Your task to perform on an android device: Go to CNN.com Image 0: 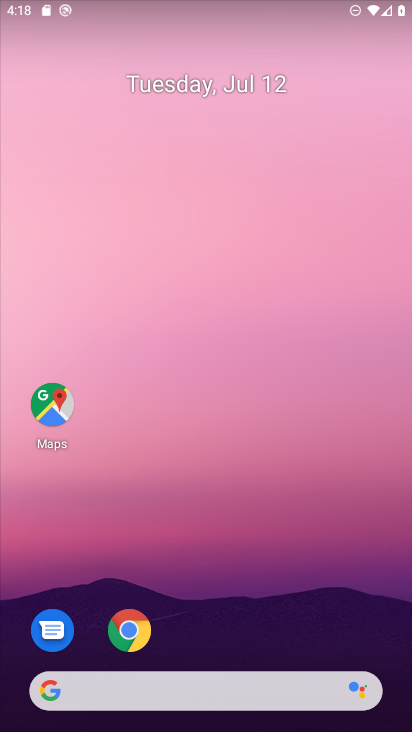
Step 0: click (136, 654)
Your task to perform on an android device: Go to CNN.com Image 1: 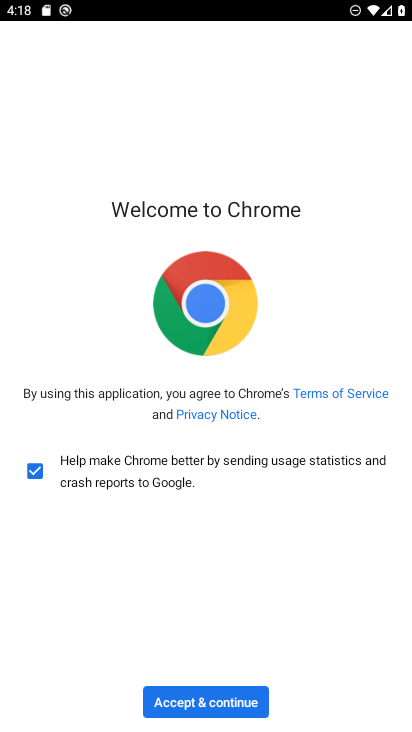
Step 1: click (230, 695)
Your task to perform on an android device: Go to CNN.com Image 2: 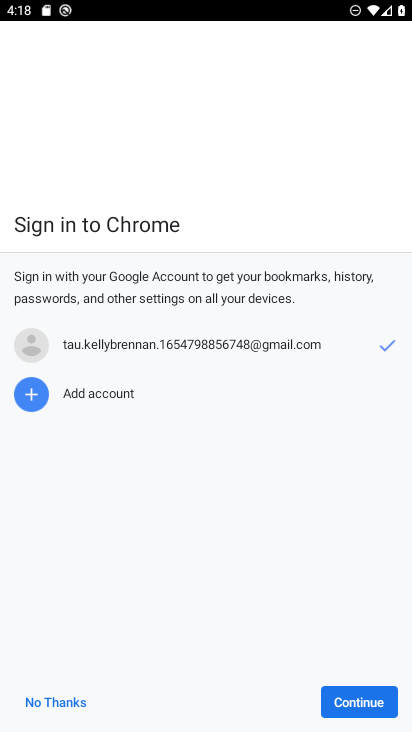
Step 2: click (341, 707)
Your task to perform on an android device: Go to CNN.com Image 3: 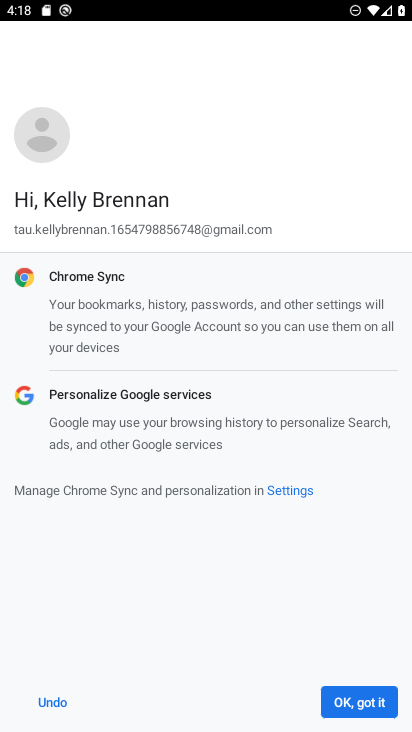
Step 3: click (341, 707)
Your task to perform on an android device: Go to CNN.com Image 4: 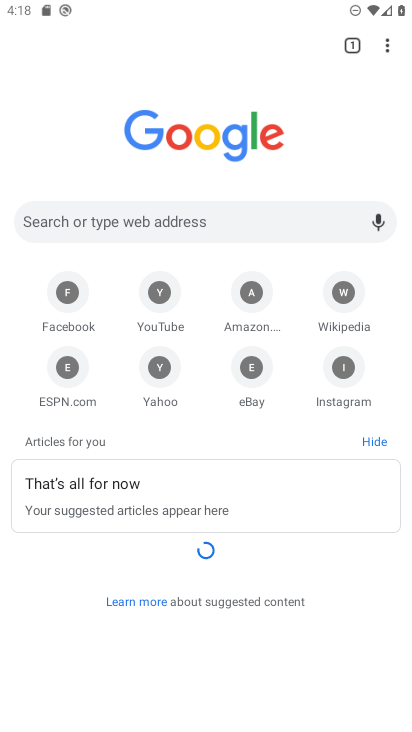
Step 4: click (154, 227)
Your task to perform on an android device: Go to CNN.com Image 5: 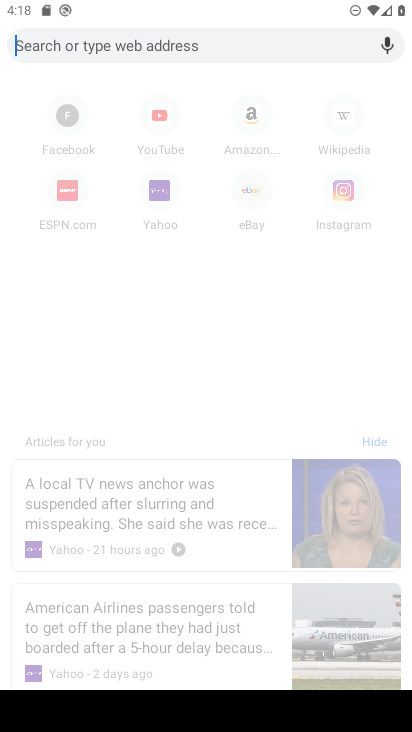
Step 5: type "CNN.com"
Your task to perform on an android device: Go to CNN.com Image 6: 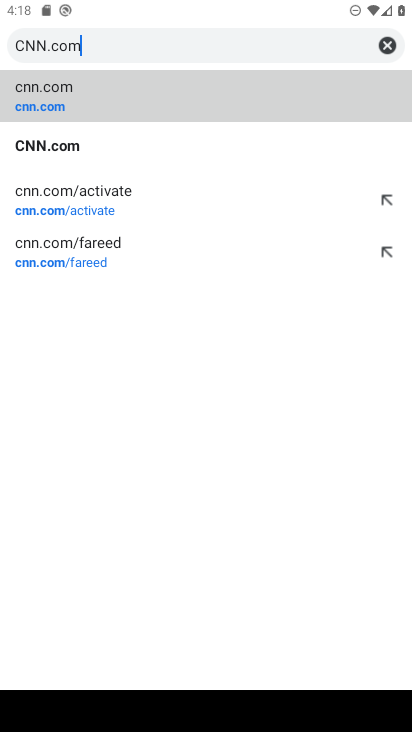
Step 6: click (97, 99)
Your task to perform on an android device: Go to CNN.com Image 7: 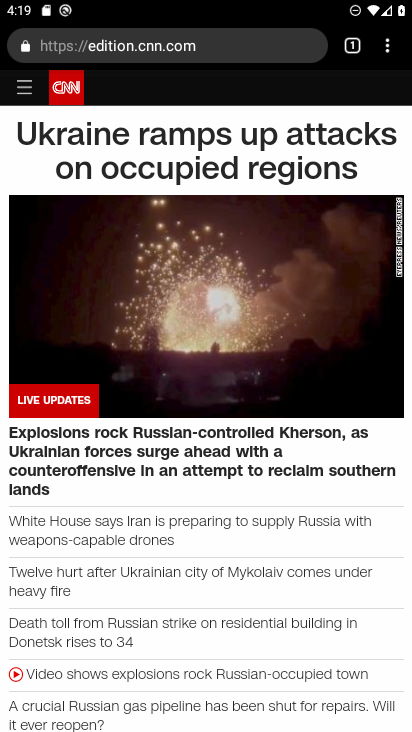
Step 7: task complete